Your task to perform on an android device: turn off notifications in google photos Image 0: 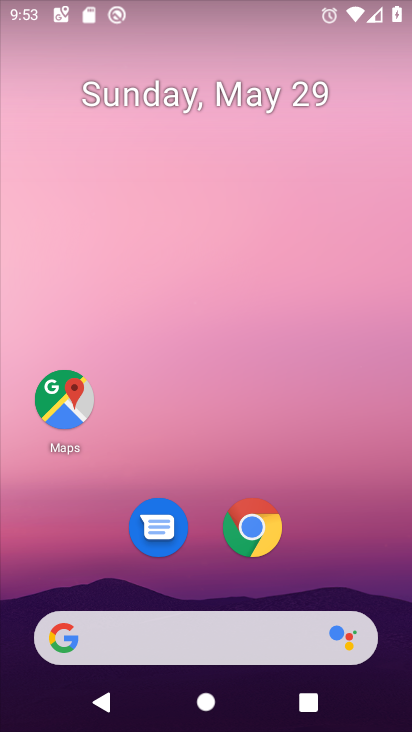
Step 0: drag from (209, 582) to (256, 25)
Your task to perform on an android device: turn off notifications in google photos Image 1: 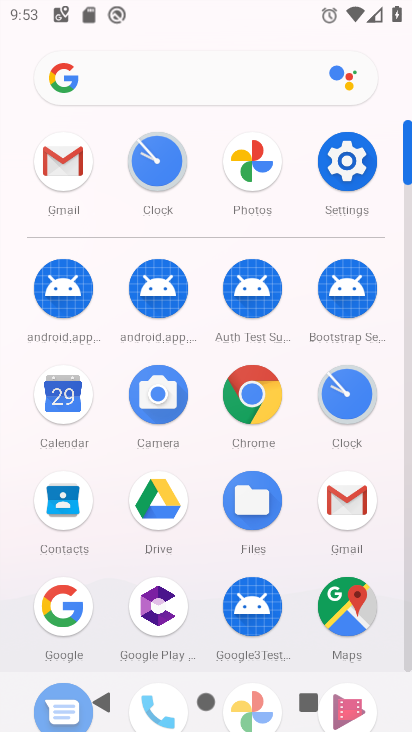
Step 1: click (246, 152)
Your task to perform on an android device: turn off notifications in google photos Image 2: 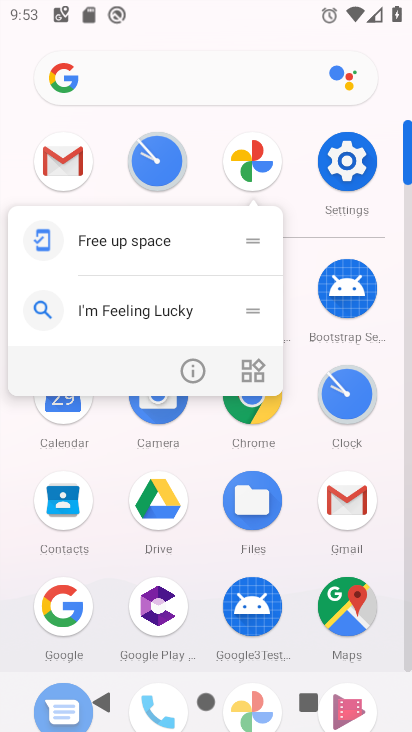
Step 2: click (252, 152)
Your task to perform on an android device: turn off notifications in google photos Image 3: 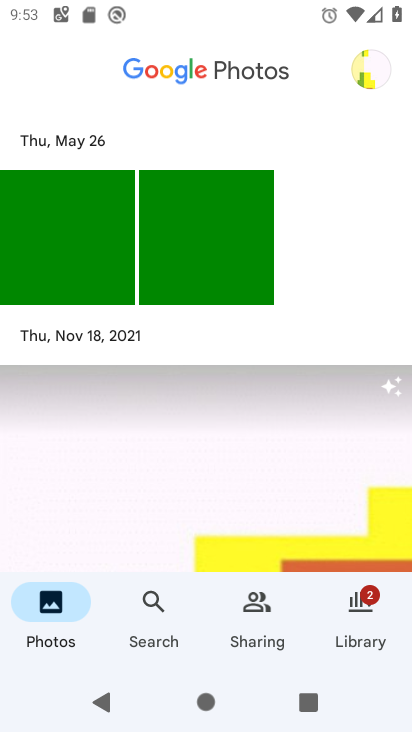
Step 3: click (366, 67)
Your task to perform on an android device: turn off notifications in google photos Image 4: 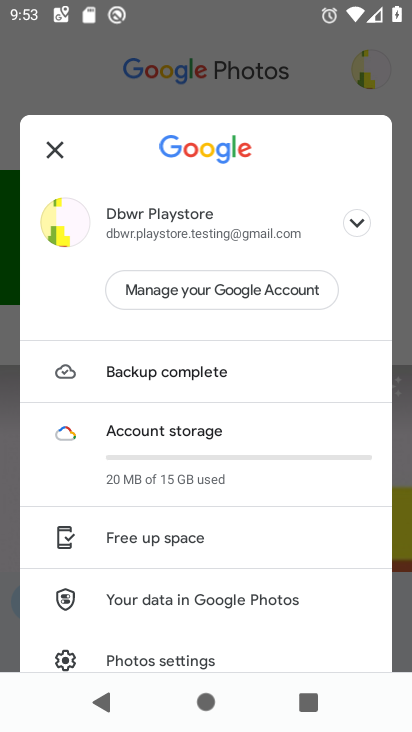
Step 4: click (236, 649)
Your task to perform on an android device: turn off notifications in google photos Image 5: 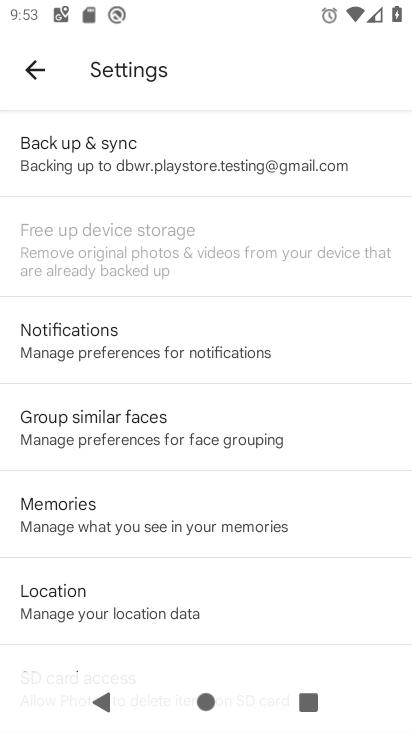
Step 5: click (141, 333)
Your task to perform on an android device: turn off notifications in google photos Image 6: 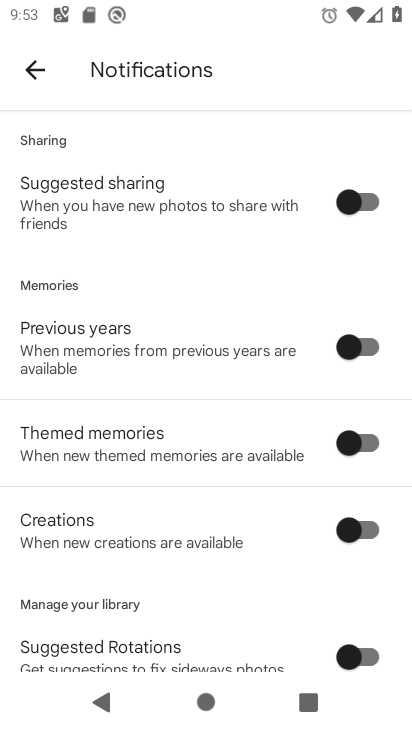
Step 6: drag from (191, 623) to (251, 152)
Your task to perform on an android device: turn off notifications in google photos Image 7: 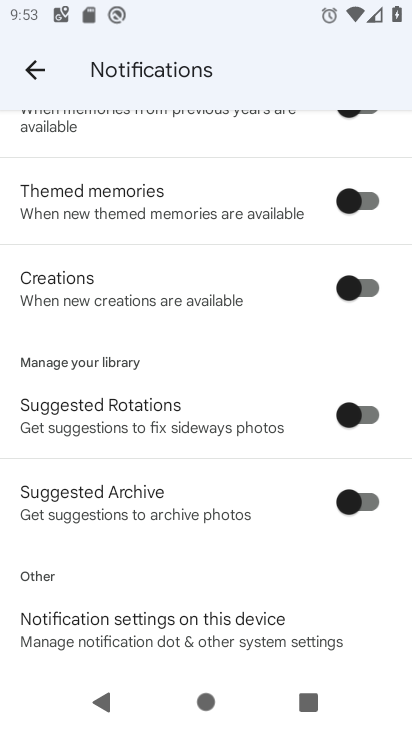
Step 7: click (304, 613)
Your task to perform on an android device: turn off notifications in google photos Image 8: 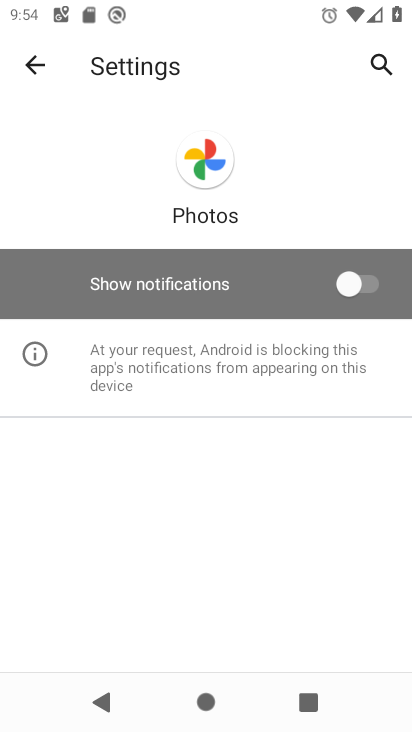
Step 8: task complete